Your task to perform on an android device: Search for seafood restaurants on Google Maps Image 0: 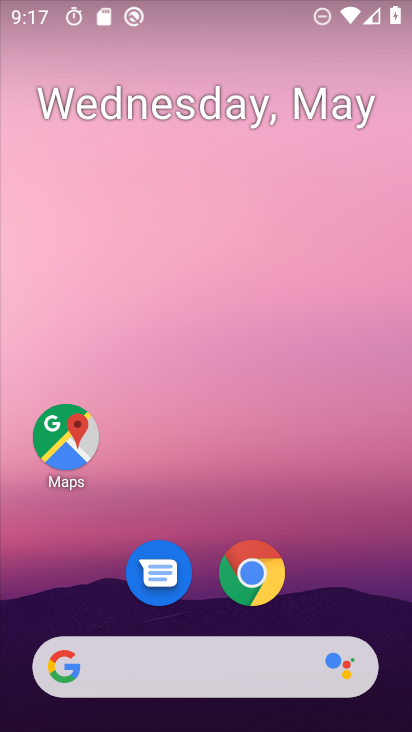
Step 0: click (57, 436)
Your task to perform on an android device: Search for seafood restaurants on Google Maps Image 1: 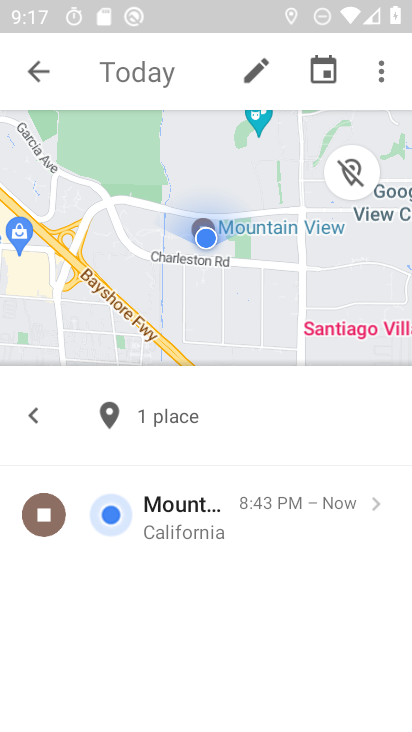
Step 1: click (40, 78)
Your task to perform on an android device: Search for seafood restaurants on Google Maps Image 2: 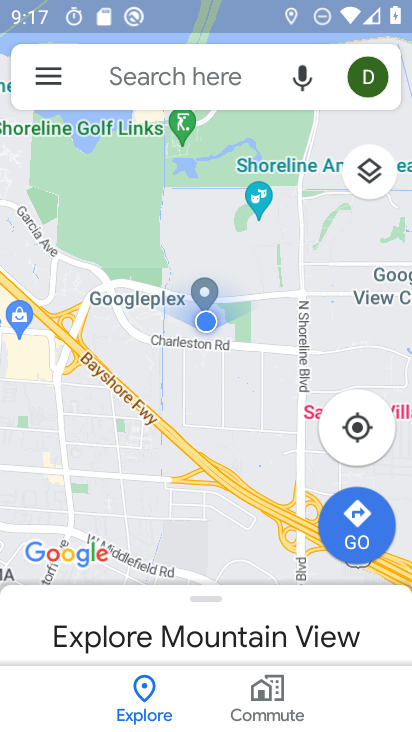
Step 2: click (116, 82)
Your task to perform on an android device: Search for seafood restaurants on Google Maps Image 3: 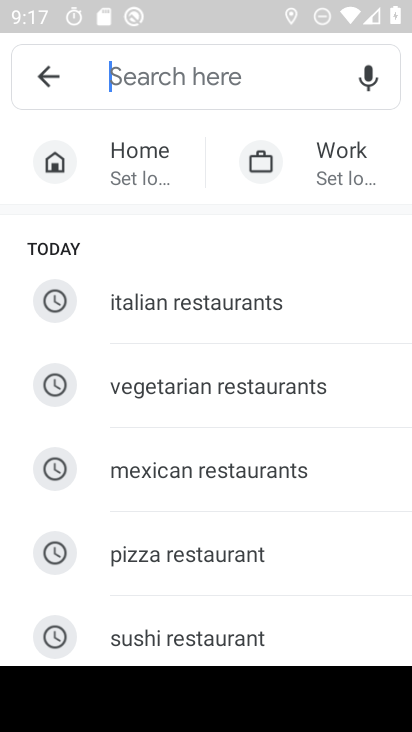
Step 3: type " seafood restaurants "
Your task to perform on an android device: Search for seafood restaurants on Google Maps Image 4: 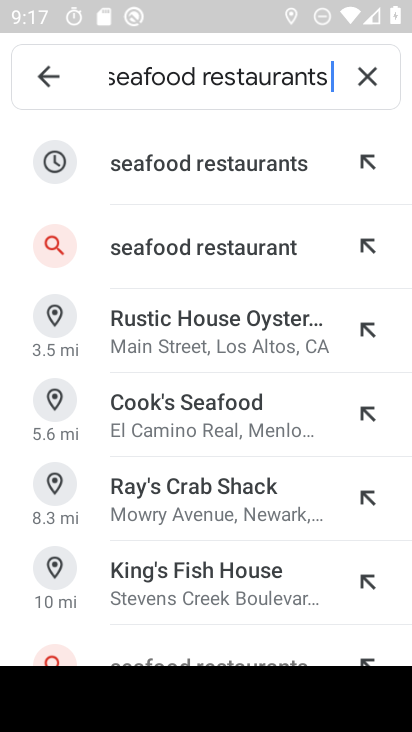
Step 4: click (146, 256)
Your task to perform on an android device: Search for seafood restaurants on Google Maps Image 5: 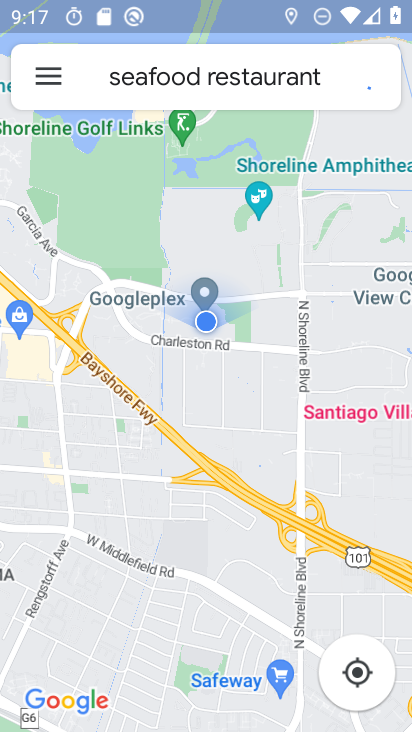
Step 5: task complete